Your task to perform on an android device: Open Chrome and go to the settings page Image 0: 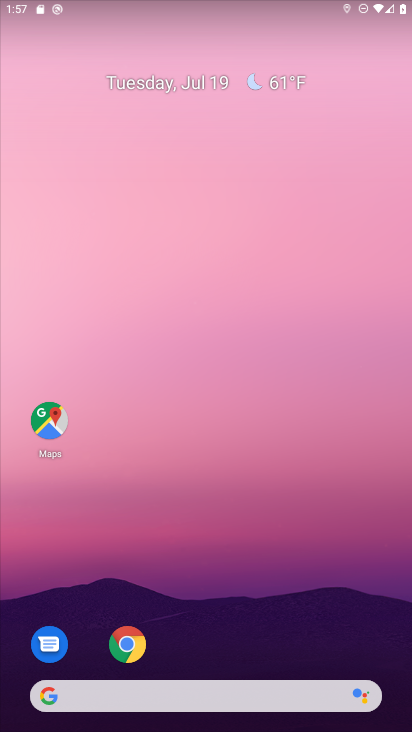
Step 0: drag from (223, 674) to (163, 21)
Your task to perform on an android device: Open Chrome and go to the settings page Image 1: 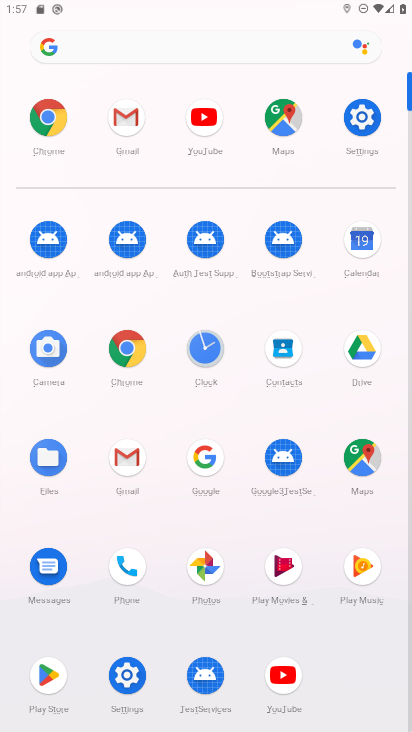
Step 1: click (133, 353)
Your task to perform on an android device: Open Chrome and go to the settings page Image 2: 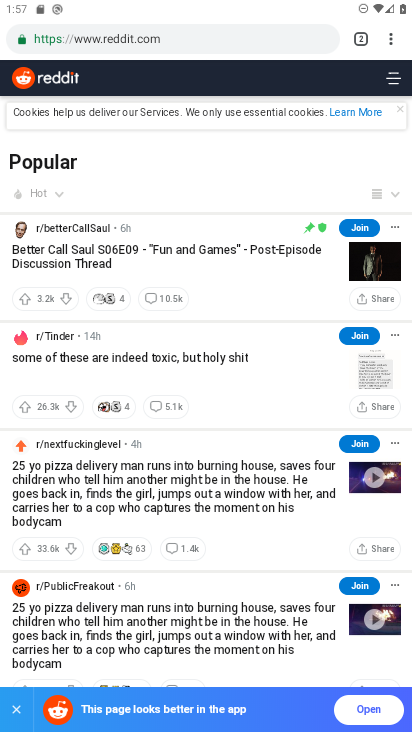
Step 2: task complete